Your task to perform on an android device: turn off translation in the chrome app Image 0: 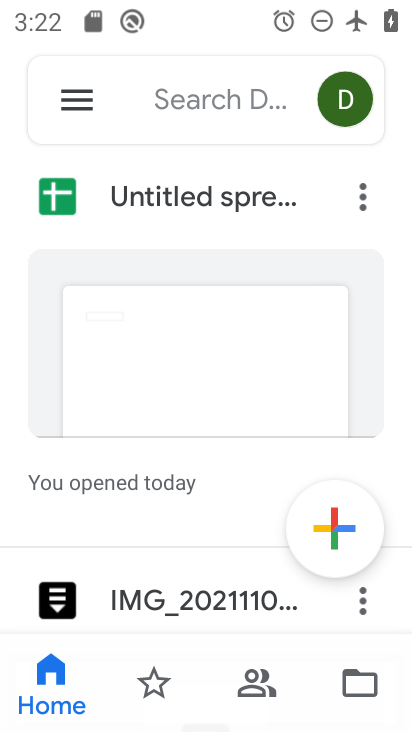
Step 0: press home button
Your task to perform on an android device: turn off translation in the chrome app Image 1: 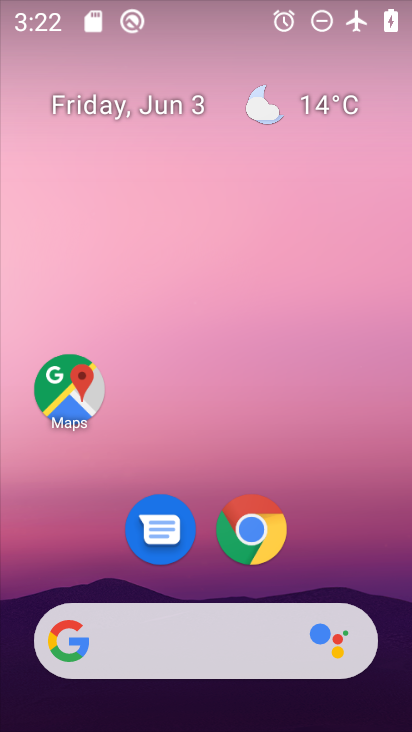
Step 1: drag from (375, 549) to (337, 150)
Your task to perform on an android device: turn off translation in the chrome app Image 2: 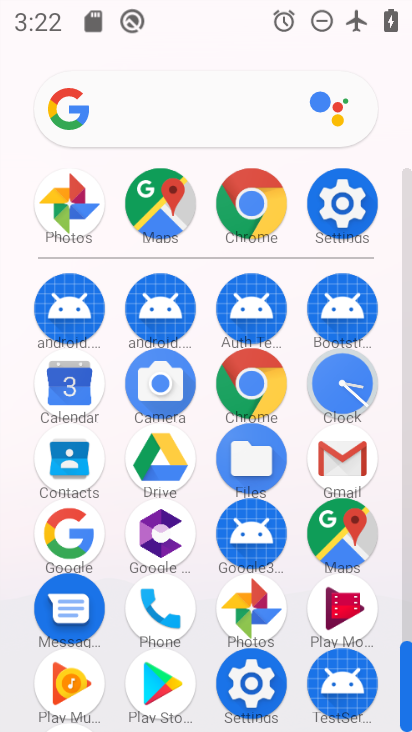
Step 2: click (273, 388)
Your task to perform on an android device: turn off translation in the chrome app Image 3: 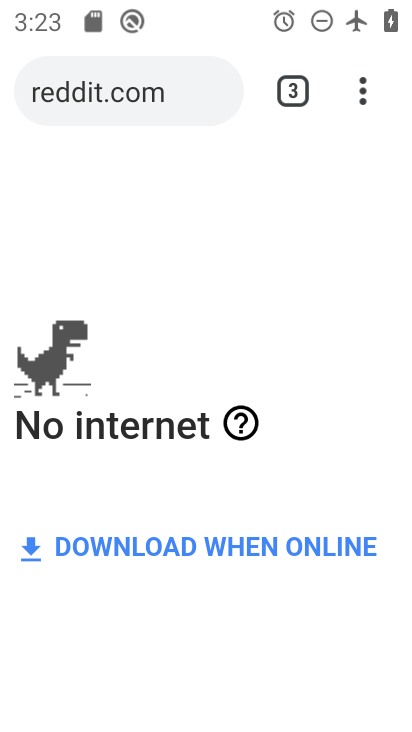
Step 3: click (359, 103)
Your task to perform on an android device: turn off translation in the chrome app Image 4: 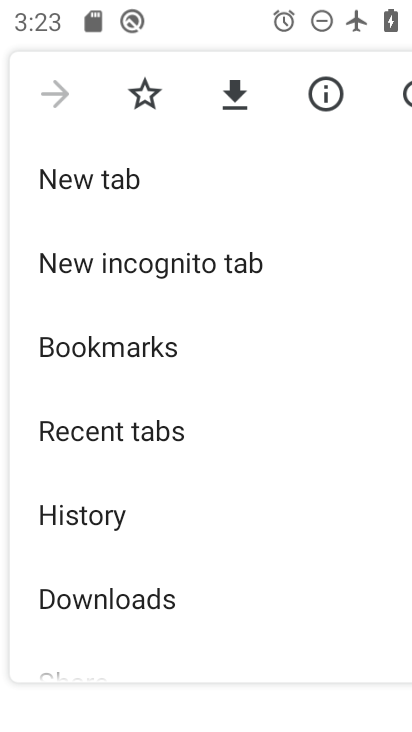
Step 4: drag from (293, 497) to (293, 327)
Your task to perform on an android device: turn off translation in the chrome app Image 5: 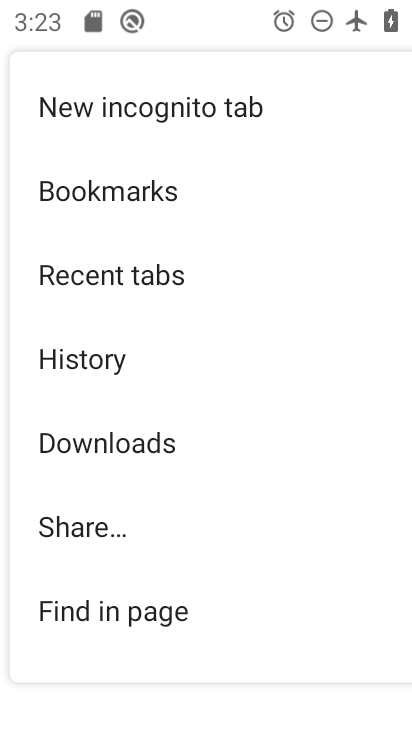
Step 5: drag from (290, 536) to (289, 367)
Your task to perform on an android device: turn off translation in the chrome app Image 6: 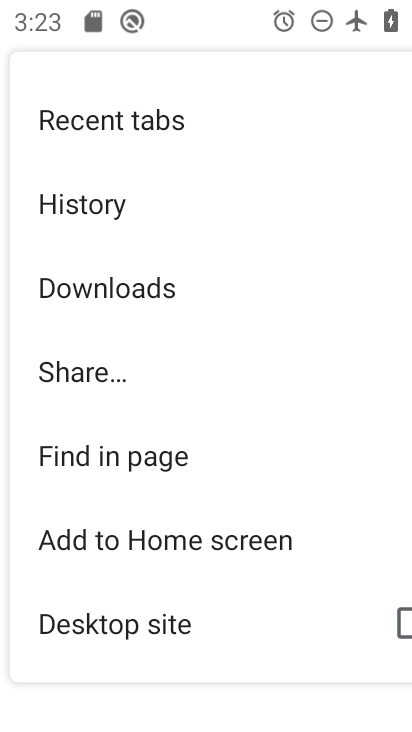
Step 6: drag from (285, 577) to (289, 366)
Your task to perform on an android device: turn off translation in the chrome app Image 7: 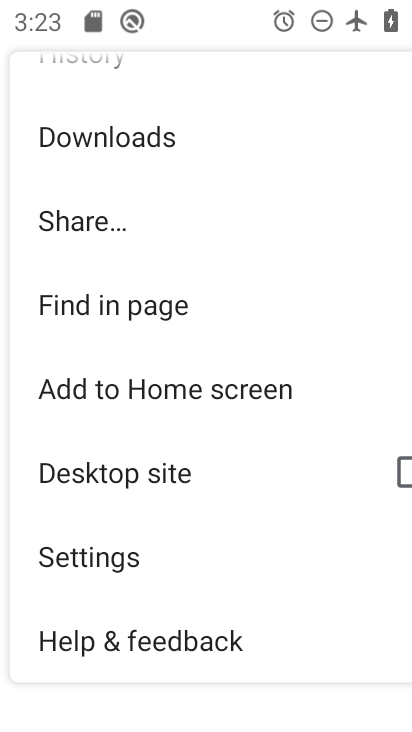
Step 7: click (146, 576)
Your task to perform on an android device: turn off translation in the chrome app Image 8: 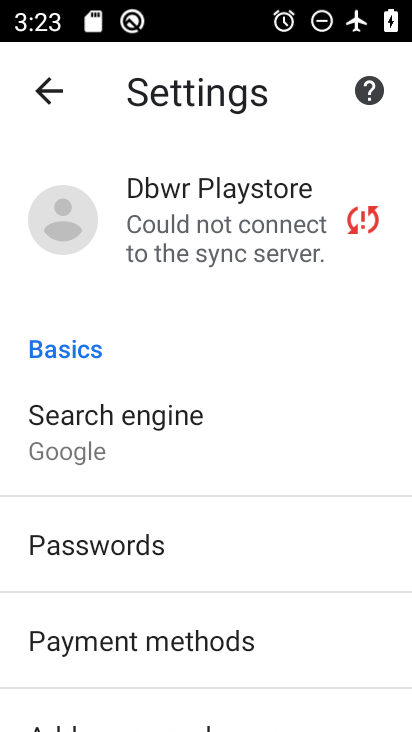
Step 8: drag from (265, 562) to (270, 416)
Your task to perform on an android device: turn off translation in the chrome app Image 9: 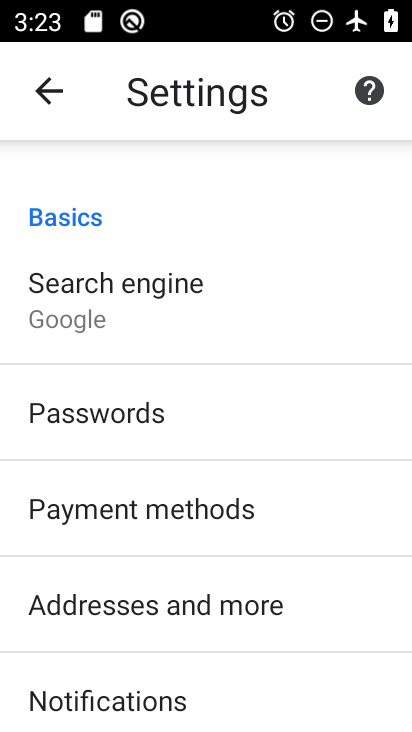
Step 9: drag from (293, 595) to (300, 419)
Your task to perform on an android device: turn off translation in the chrome app Image 10: 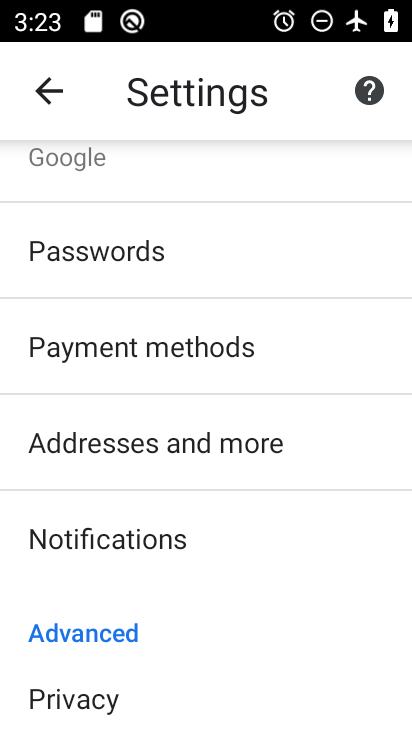
Step 10: drag from (294, 512) to (293, 375)
Your task to perform on an android device: turn off translation in the chrome app Image 11: 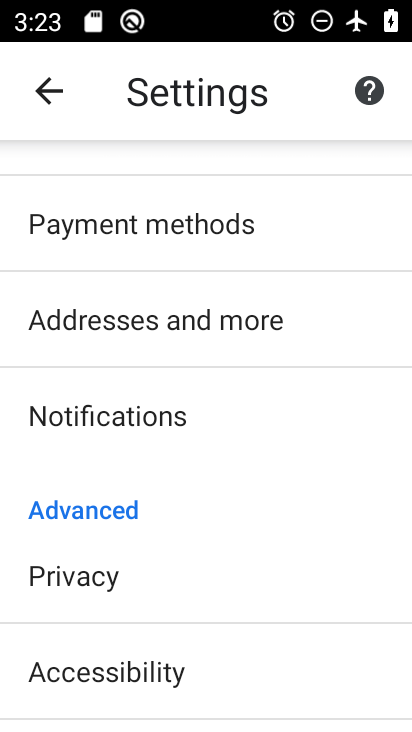
Step 11: drag from (279, 549) to (300, 335)
Your task to perform on an android device: turn off translation in the chrome app Image 12: 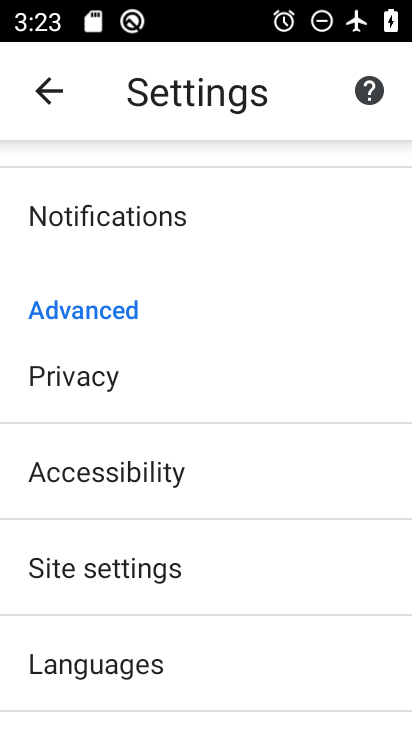
Step 12: drag from (298, 562) to (305, 413)
Your task to perform on an android device: turn off translation in the chrome app Image 13: 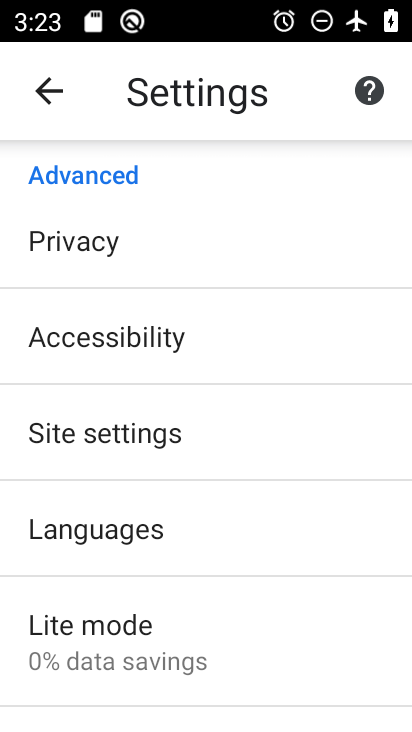
Step 13: click (190, 528)
Your task to perform on an android device: turn off translation in the chrome app Image 14: 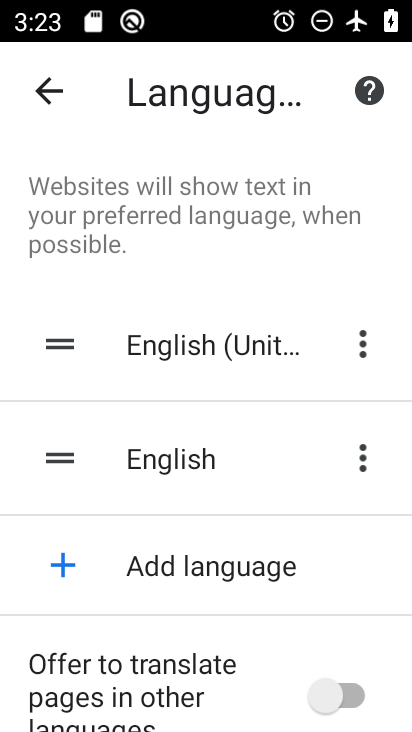
Step 14: task complete